Your task to perform on an android device: Show me productivity apps on the Play Store Image 0: 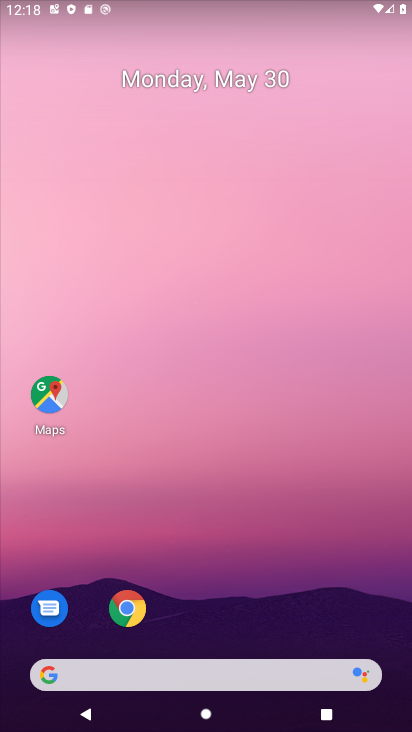
Step 0: drag from (264, 621) to (296, 104)
Your task to perform on an android device: Show me productivity apps on the Play Store Image 1: 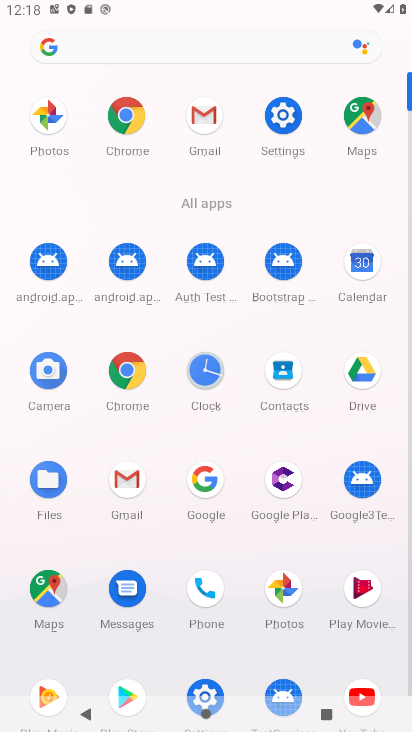
Step 1: click (123, 680)
Your task to perform on an android device: Show me productivity apps on the Play Store Image 2: 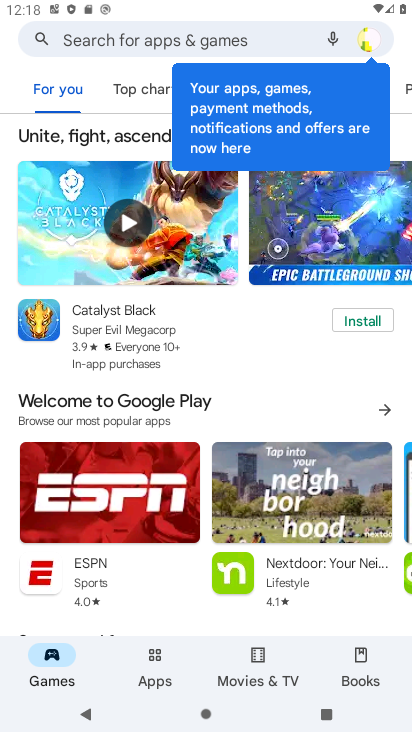
Step 2: click (218, 34)
Your task to perform on an android device: Show me productivity apps on the Play Store Image 3: 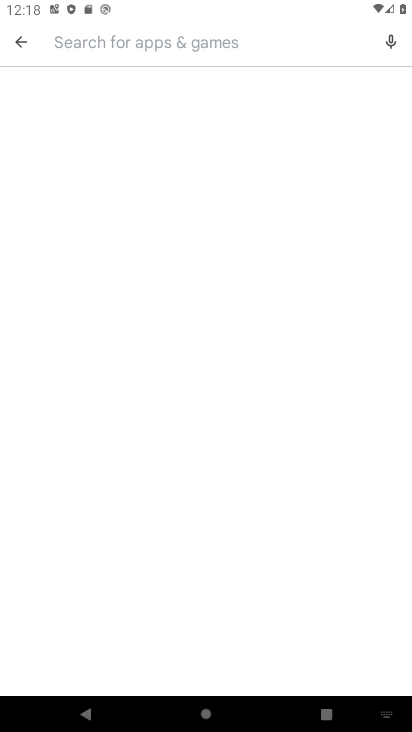
Step 3: type "productivity apps"
Your task to perform on an android device: Show me productivity apps on the Play Store Image 4: 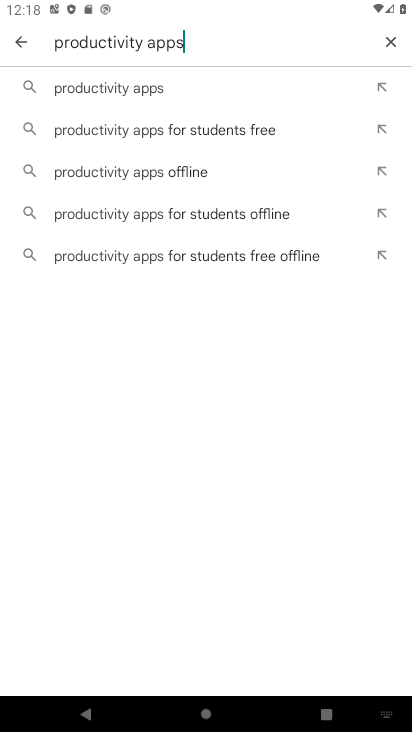
Step 4: click (182, 79)
Your task to perform on an android device: Show me productivity apps on the Play Store Image 5: 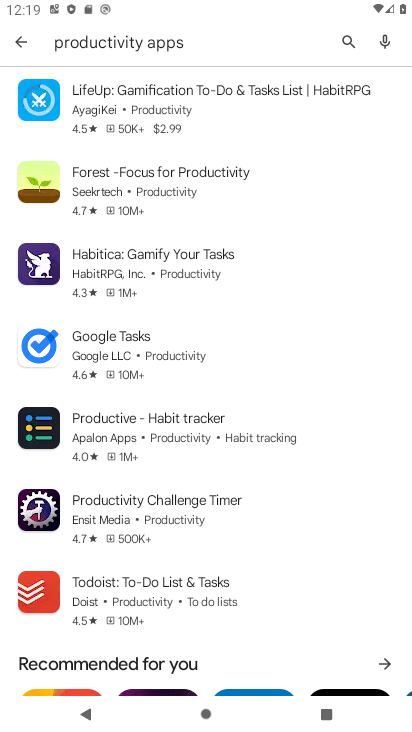
Step 5: task complete